Your task to perform on an android device: See recent photos Image 0: 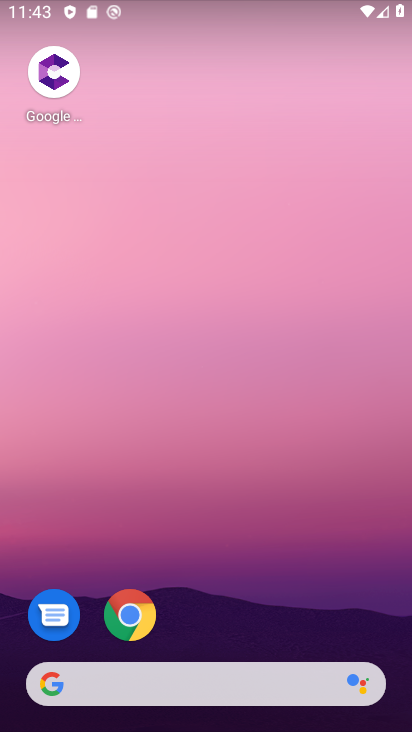
Step 0: drag from (187, 663) to (309, 140)
Your task to perform on an android device: See recent photos Image 1: 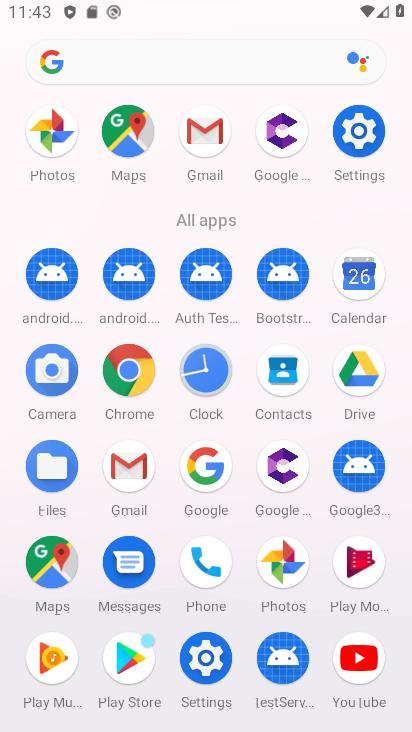
Step 1: click (301, 562)
Your task to perform on an android device: See recent photos Image 2: 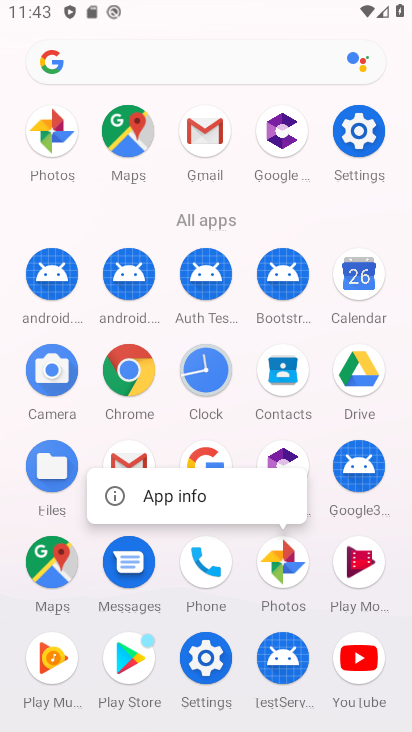
Step 2: click (297, 566)
Your task to perform on an android device: See recent photos Image 3: 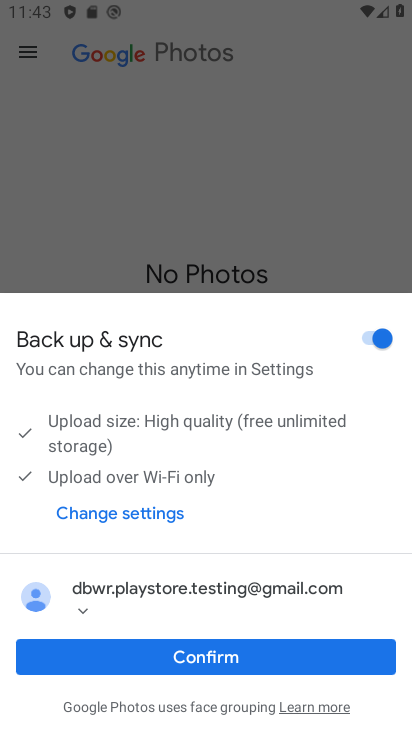
Step 3: click (257, 666)
Your task to perform on an android device: See recent photos Image 4: 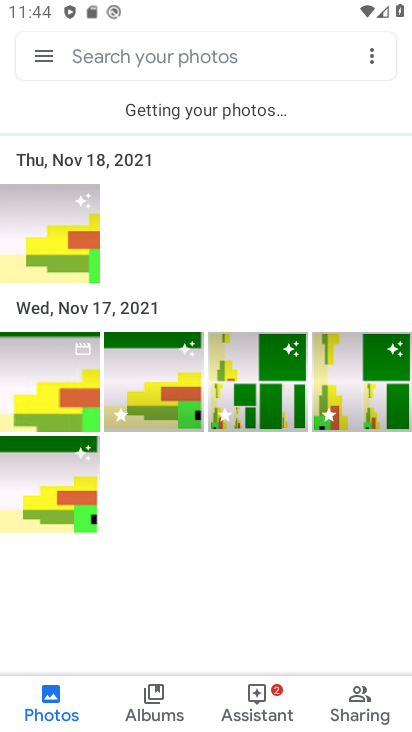
Step 4: task complete